Your task to perform on an android device: Check the weather Image 0: 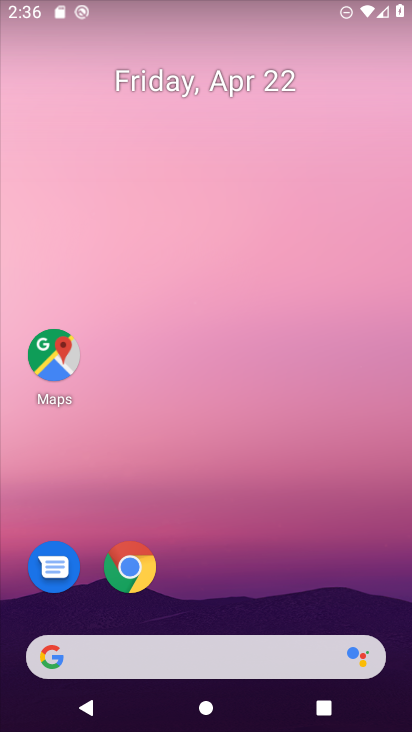
Step 0: drag from (258, 621) to (247, 228)
Your task to perform on an android device: Check the weather Image 1: 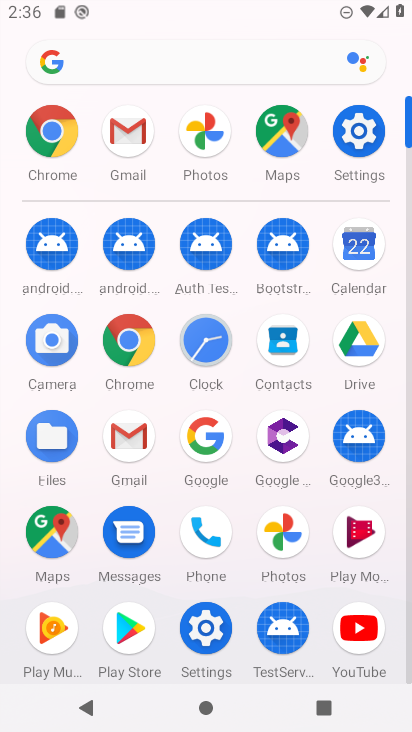
Step 1: click (208, 444)
Your task to perform on an android device: Check the weather Image 2: 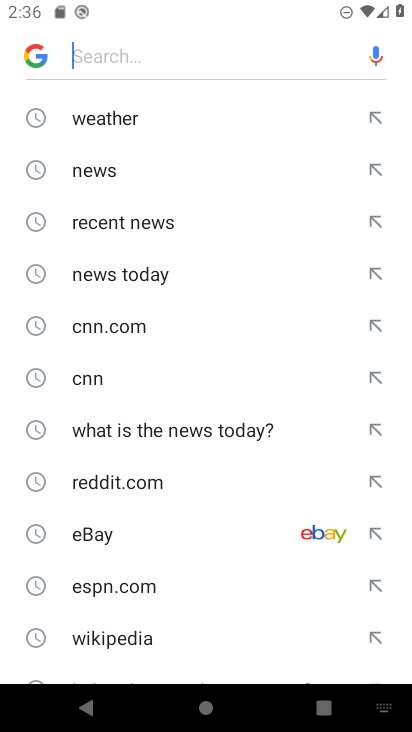
Step 2: click (113, 110)
Your task to perform on an android device: Check the weather Image 3: 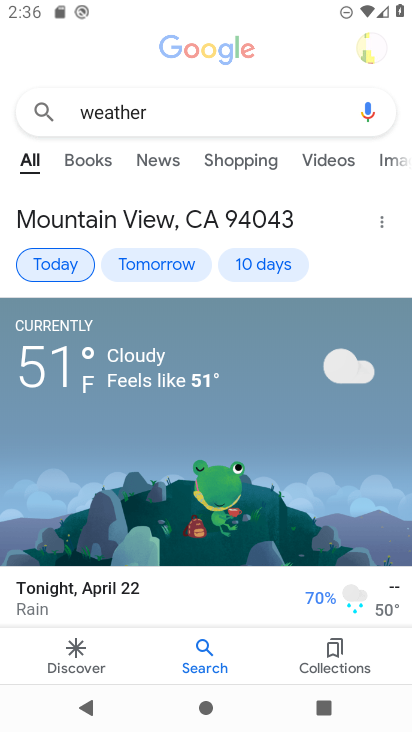
Step 3: task complete